Your task to perform on an android device: Open calendar and show me the first week of next month Image 0: 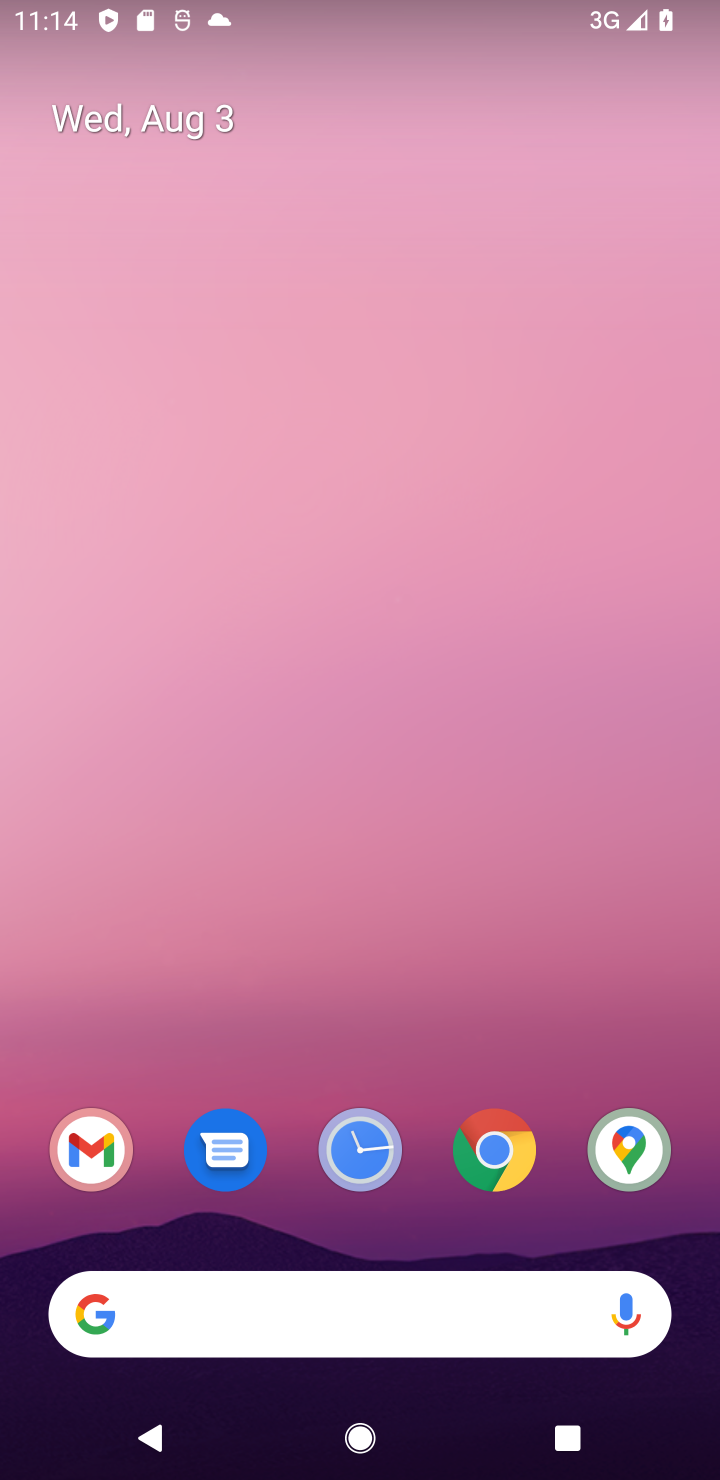
Step 0: press home button
Your task to perform on an android device: Open calendar and show me the first week of next month Image 1: 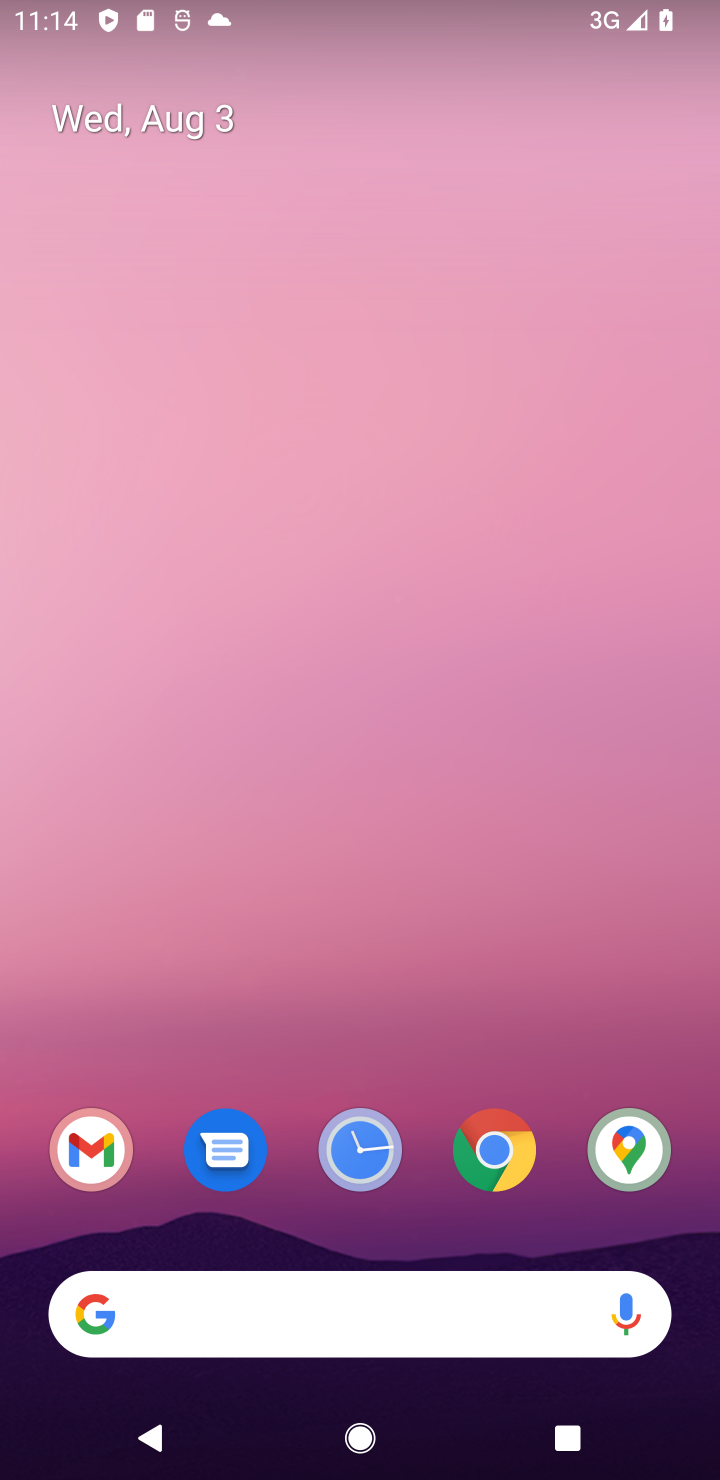
Step 1: drag from (566, 951) to (566, 261)
Your task to perform on an android device: Open calendar and show me the first week of next month Image 2: 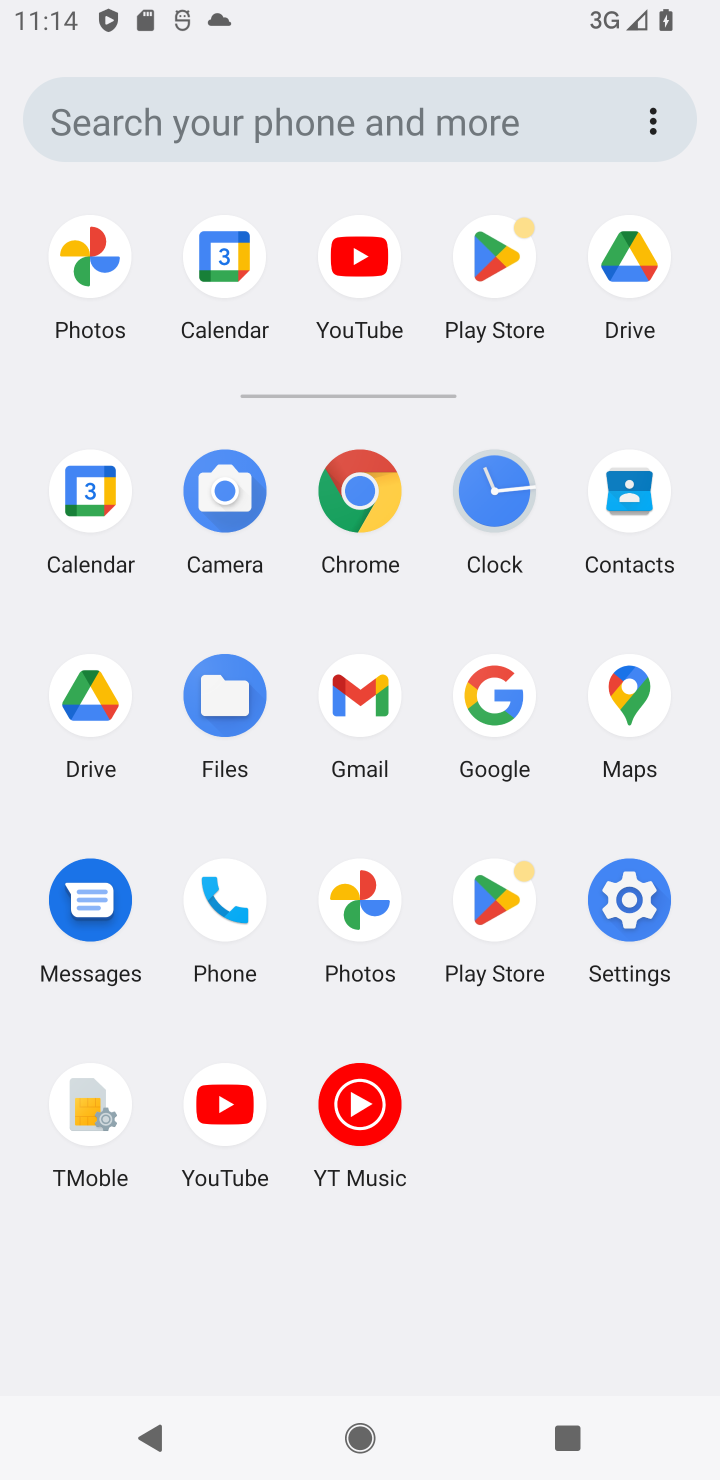
Step 2: click (87, 488)
Your task to perform on an android device: Open calendar and show me the first week of next month Image 3: 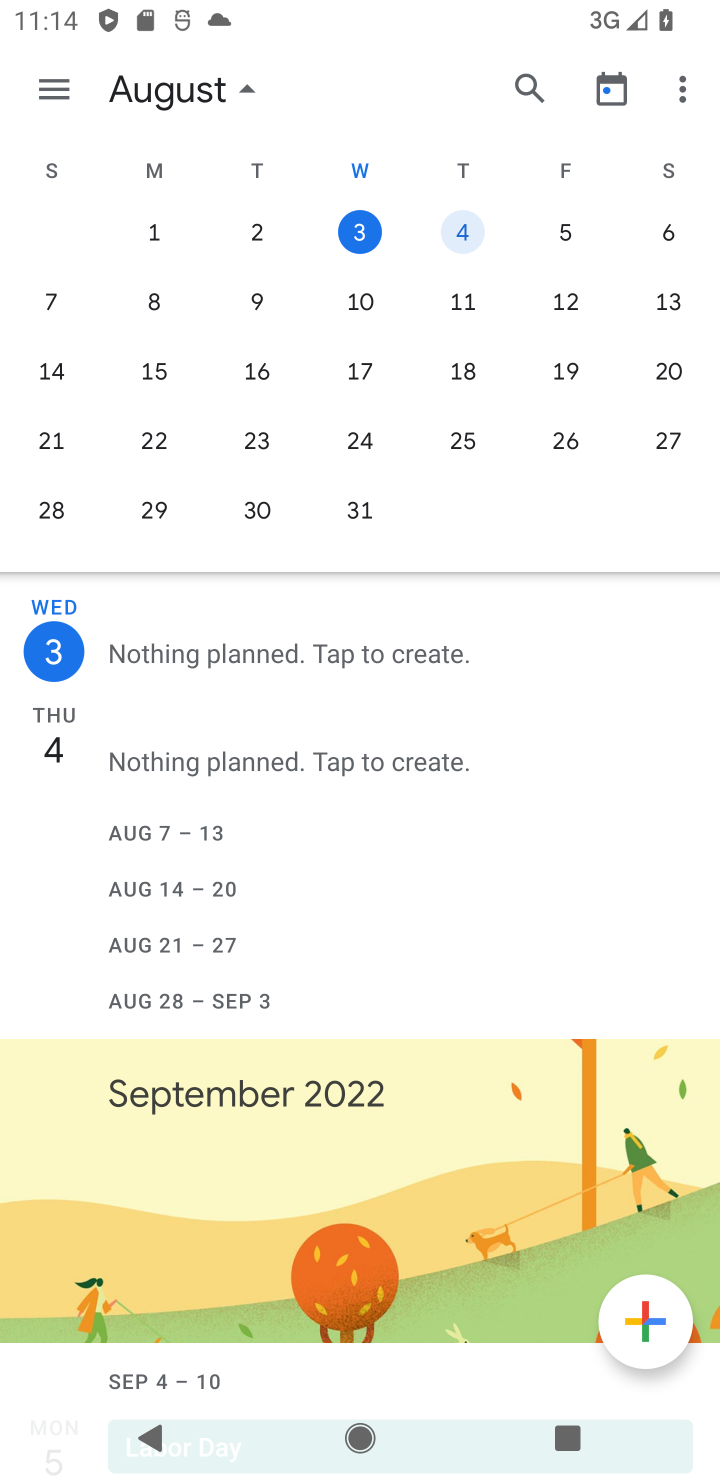
Step 3: task complete